Your task to perform on an android device: stop showing notifications on the lock screen Image 0: 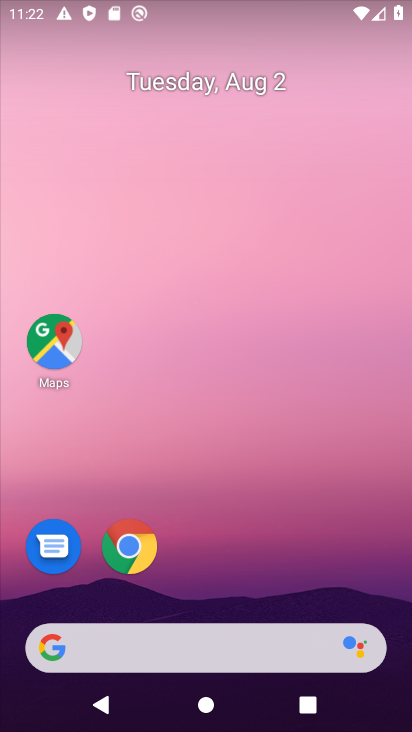
Step 0: drag from (197, 579) to (198, 54)
Your task to perform on an android device: stop showing notifications on the lock screen Image 1: 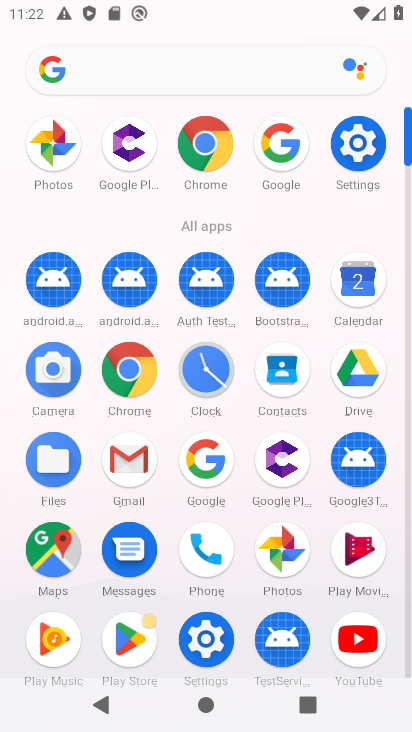
Step 1: click (346, 151)
Your task to perform on an android device: stop showing notifications on the lock screen Image 2: 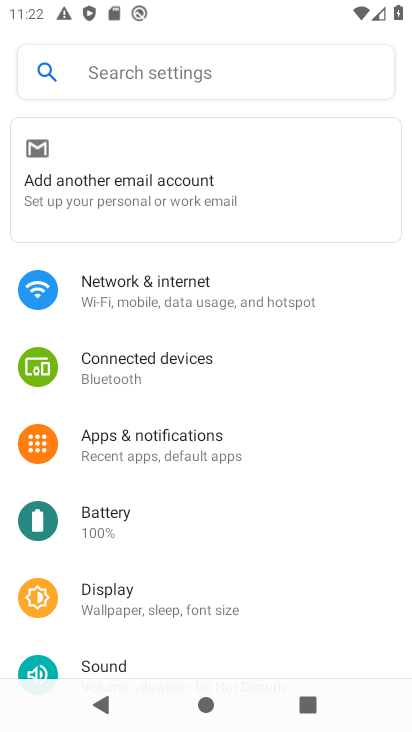
Step 2: click (179, 455)
Your task to perform on an android device: stop showing notifications on the lock screen Image 3: 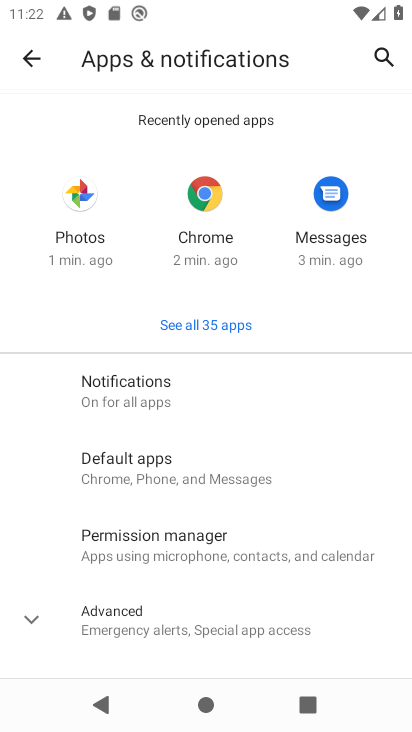
Step 3: click (165, 384)
Your task to perform on an android device: stop showing notifications on the lock screen Image 4: 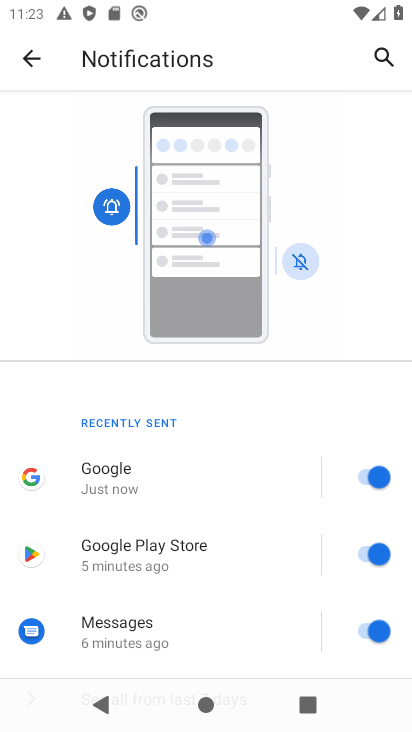
Step 4: drag from (207, 636) to (180, 168)
Your task to perform on an android device: stop showing notifications on the lock screen Image 5: 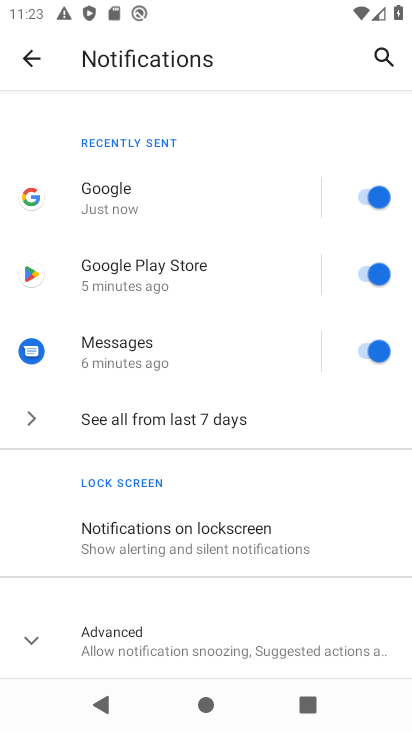
Step 5: click (155, 550)
Your task to perform on an android device: stop showing notifications on the lock screen Image 6: 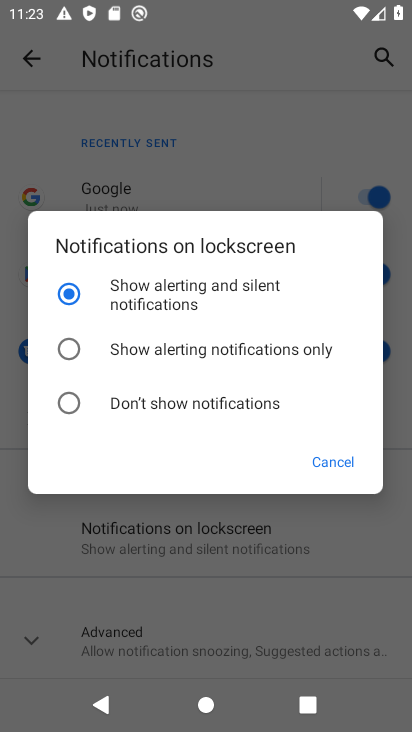
Step 6: click (180, 411)
Your task to perform on an android device: stop showing notifications on the lock screen Image 7: 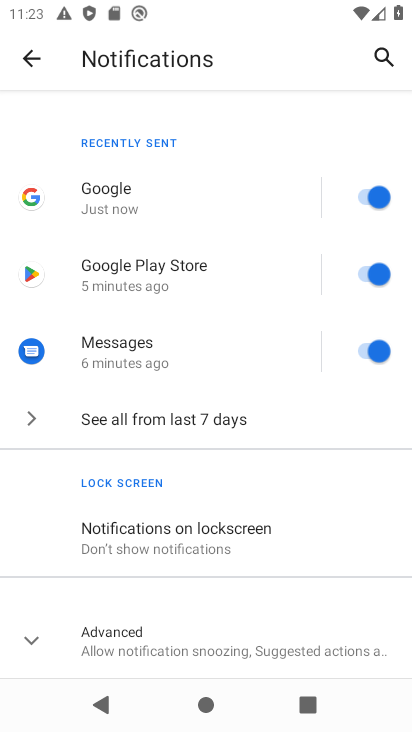
Step 7: task complete